Your task to perform on an android device: remove spam from my inbox in the gmail app Image 0: 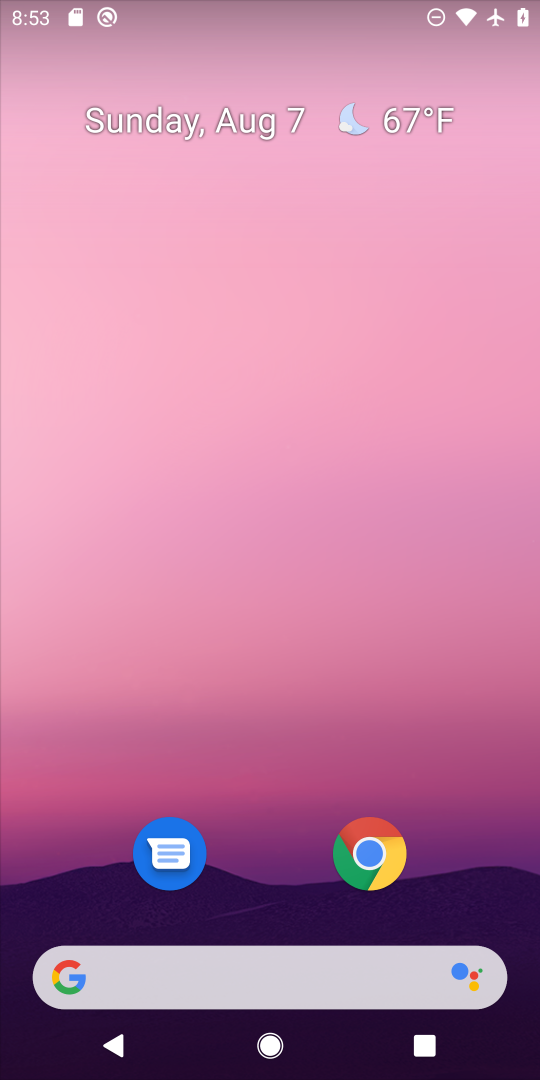
Step 0: drag from (246, 887) to (382, 113)
Your task to perform on an android device: remove spam from my inbox in the gmail app Image 1: 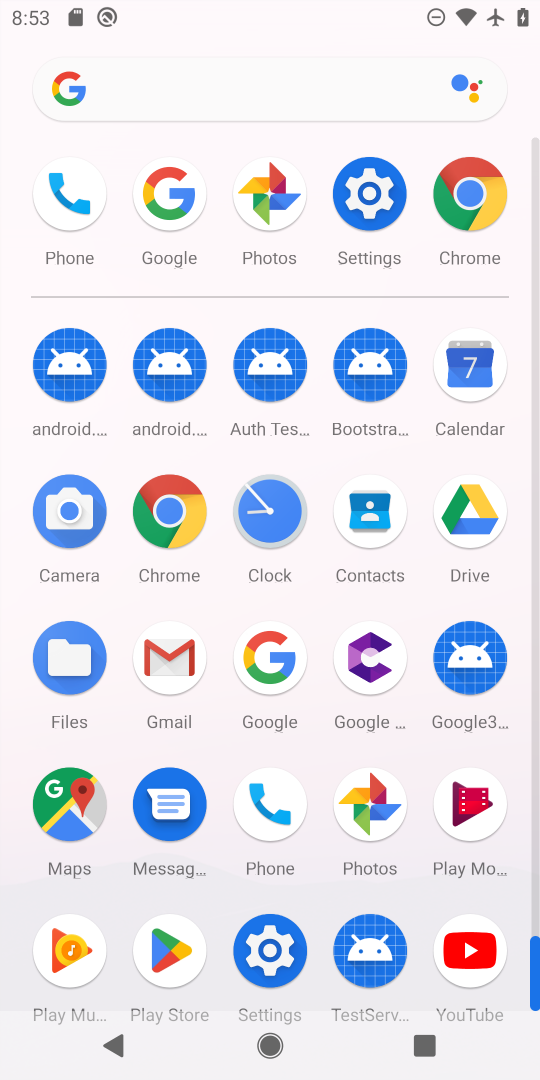
Step 1: click (169, 671)
Your task to perform on an android device: remove spam from my inbox in the gmail app Image 2: 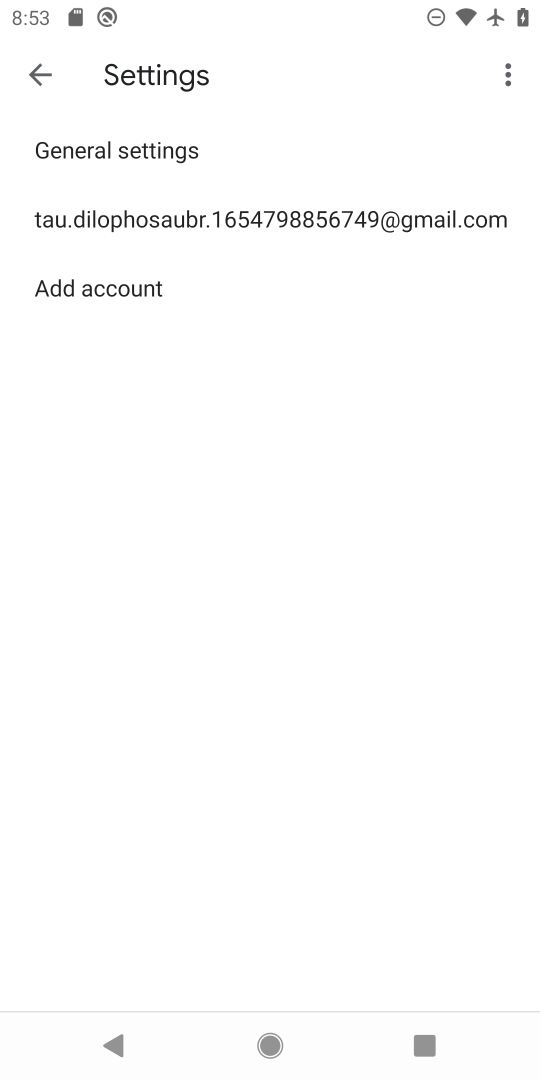
Step 2: click (23, 64)
Your task to perform on an android device: remove spam from my inbox in the gmail app Image 3: 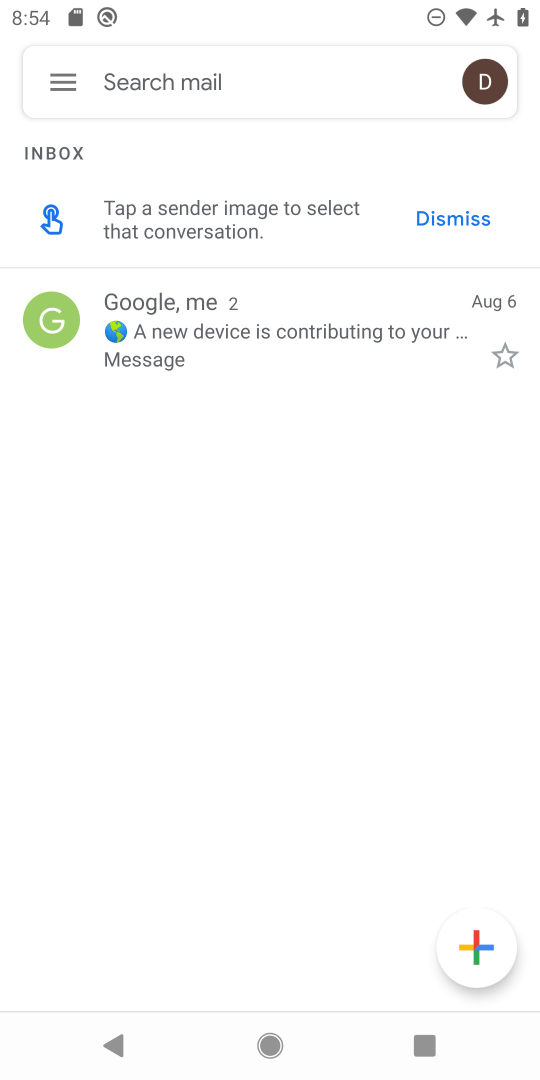
Step 3: click (74, 73)
Your task to perform on an android device: remove spam from my inbox in the gmail app Image 4: 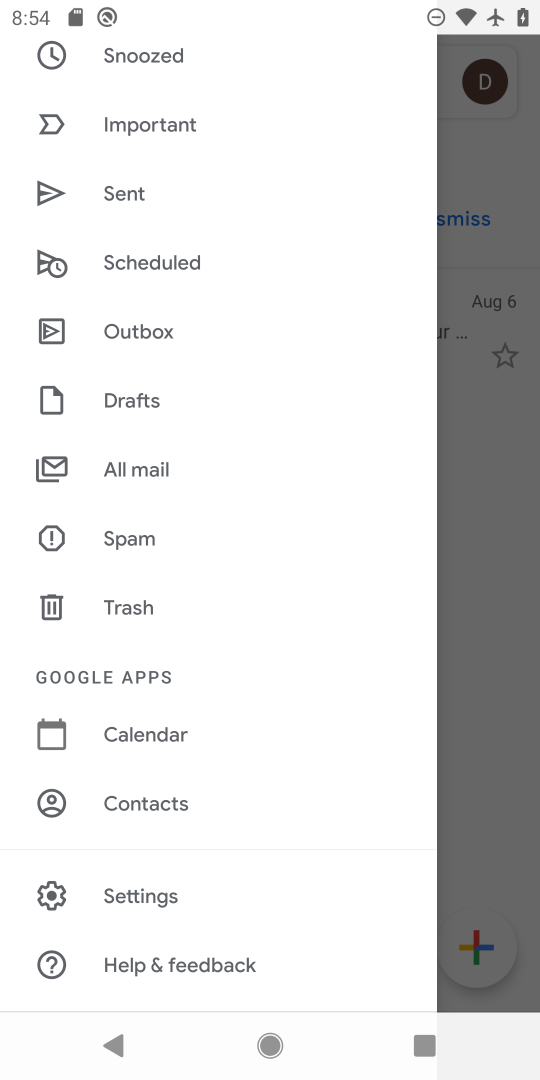
Step 4: task complete